Your task to perform on an android device: turn off notifications in google photos Image 0: 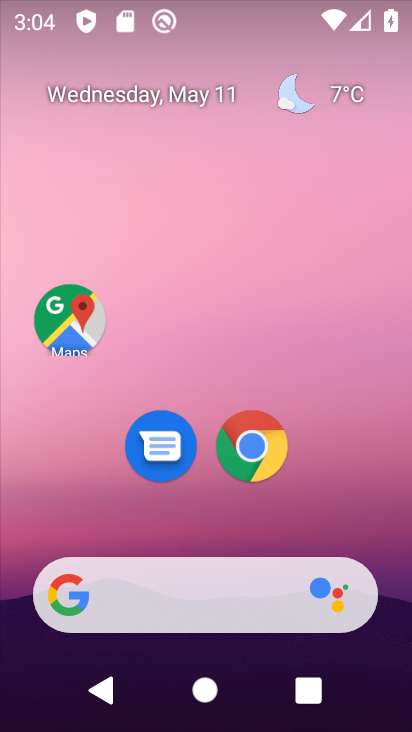
Step 0: drag from (274, 213) to (221, 106)
Your task to perform on an android device: turn off notifications in google photos Image 1: 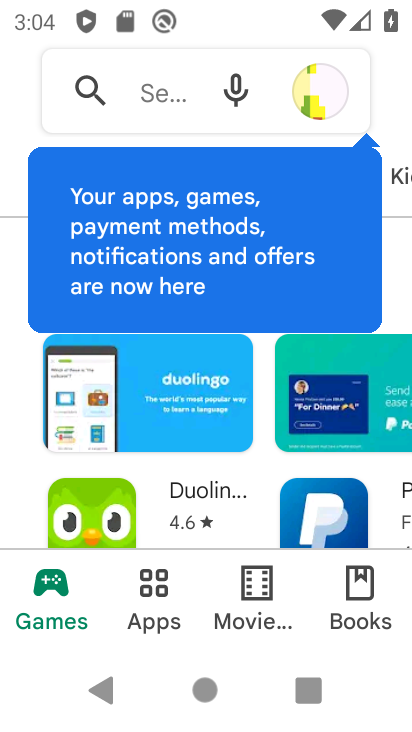
Step 1: press back button
Your task to perform on an android device: turn off notifications in google photos Image 2: 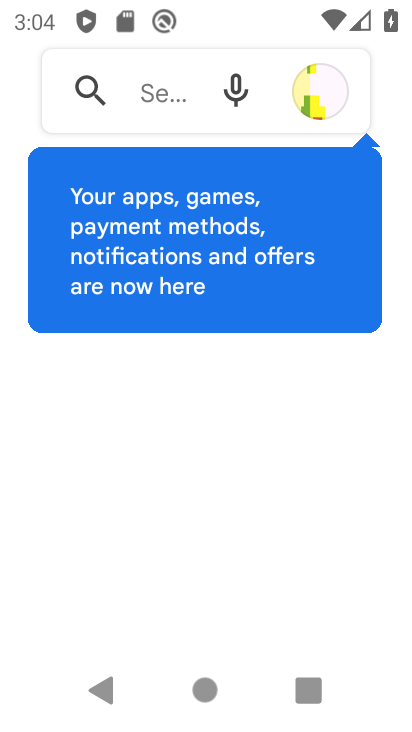
Step 2: press back button
Your task to perform on an android device: turn off notifications in google photos Image 3: 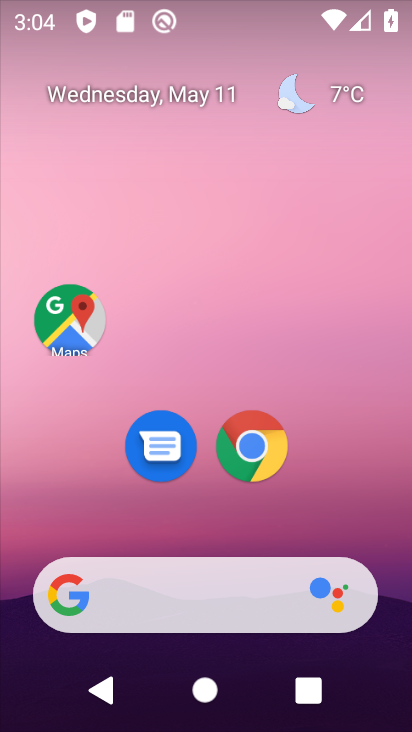
Step 3: drag from (365, 571) to (354, 308)
Your task to perform on an android device: turn off notifications in google photos Image 4: 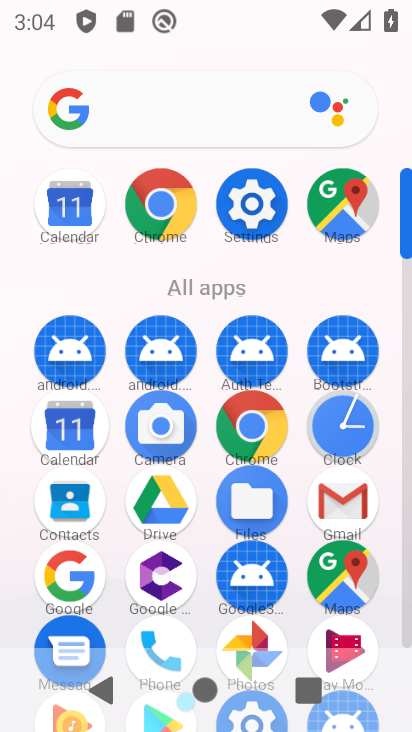
Step 4: click (259, 625)
Your task to perform on an android device: turn off notifications in google photos Image 5: 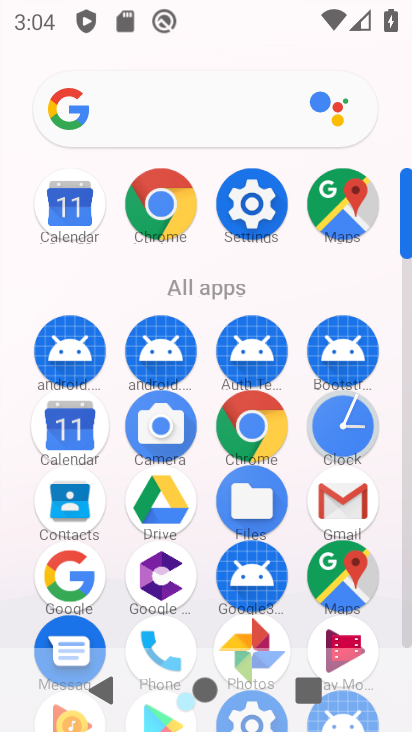
Step 5: click (256, 644)
Your task to perform on an android device: turn off notifications in google photos Image 6: 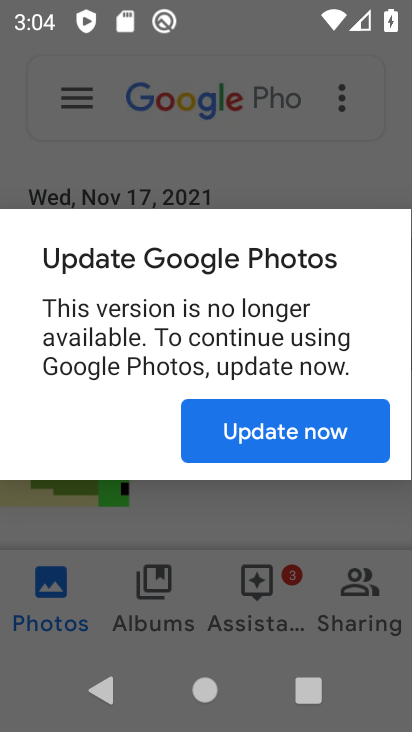
Step 6: click (273, 433)
Your task to perform on an android device: turn off notifications in google photos Image 7: 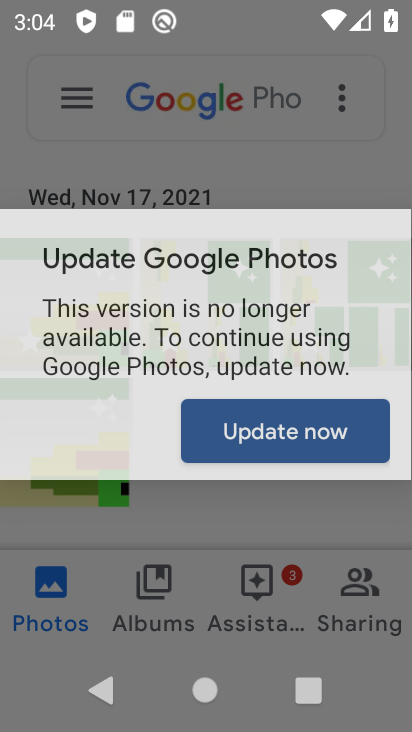
Step 7: click (273, 433)
Your task to perform on an android device: turn off notifications in google photos Image 8: 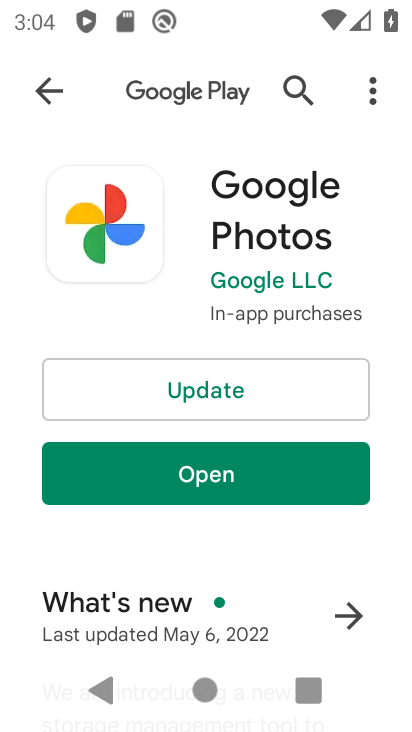
Step 8: click (215, 399)
Your task to perform on an android device: turn off notifications in google photos Image 9: 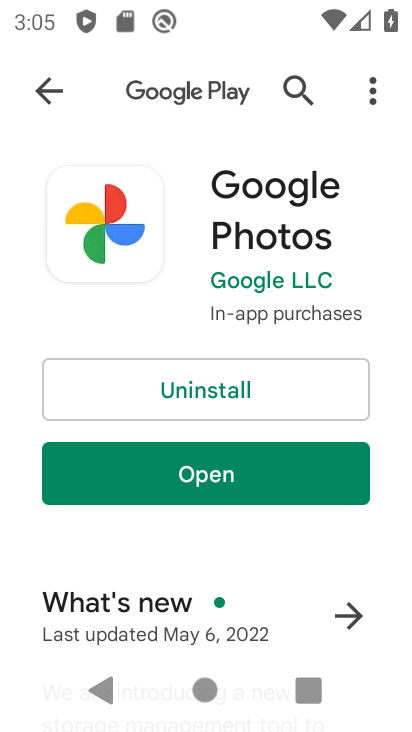
Step 9: click (260, 469)
Your task to perform on an android device: turn off notifications in google photos Image 10: 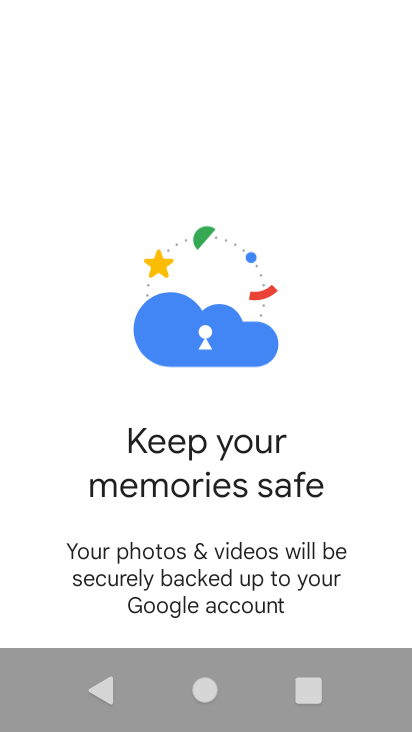
Step 10: press home button
Your task to perform on an android device: turn off notifications in google photos Image 11: 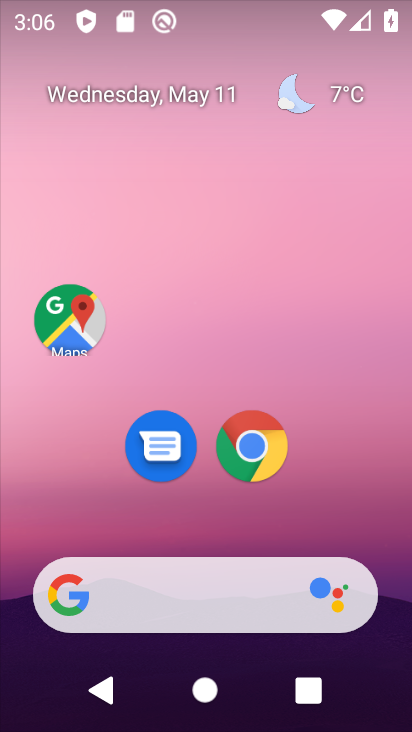
Step 11: drag from (387, 551) to (165, 162)
Your task to perform on an android device: turn off notifications in google photos Image 12: 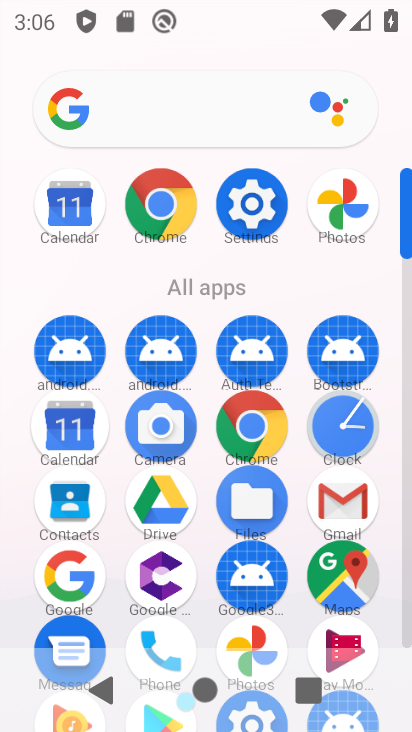
Step 12: drag from (219, 607) to (189, 328)
Your task to perform on an android device: turn off notifications in google photos Image 13: 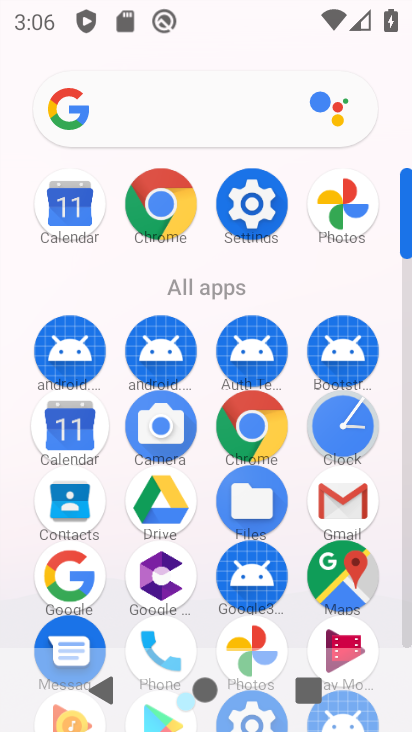
Step 13: drag from (213, 479) to (227, 228)
Your task to perform on an android device: turn off notifications in google photos Image 14: 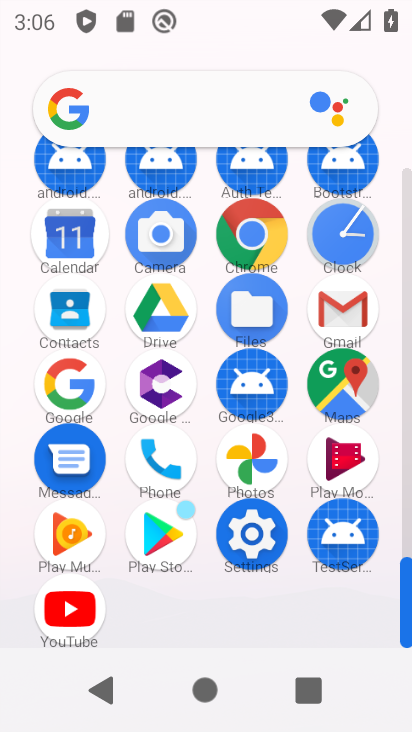
Step 14: click (263, 459)
Your task to perform on an android device: turn off notifications in google photos Image 15: 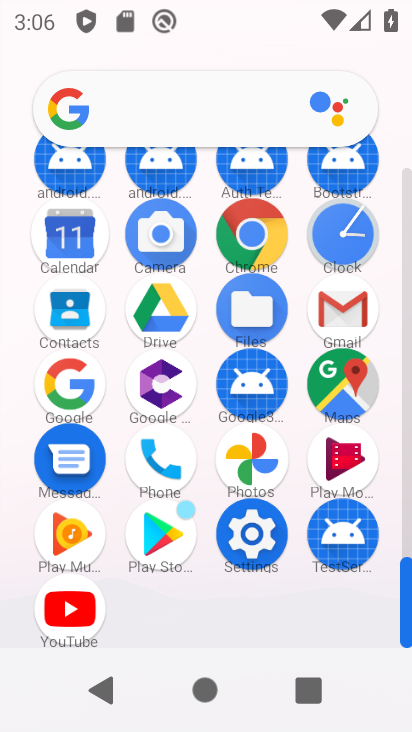
Step 15: click (257, 456)
Your task to perform on an android device: turn off notifications in google photos Image 16: 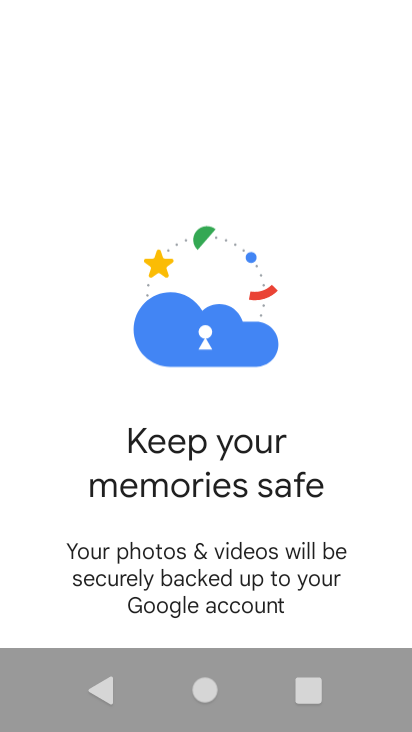
Step 16: drag from (289, 527) to (211, 138)
Your task to perform on an android device: turn off notifications in google photos Image 17: 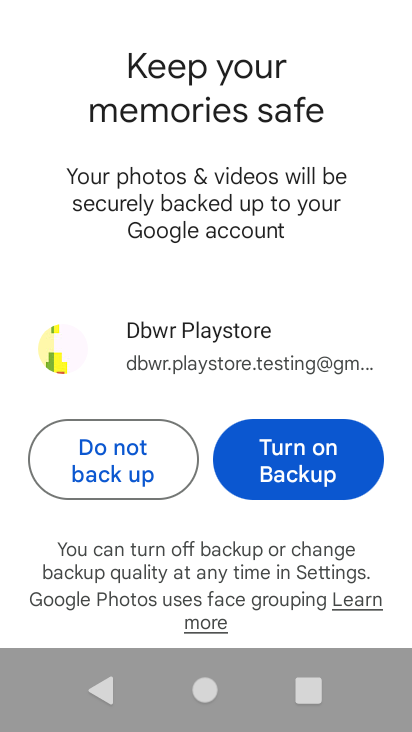
Step 17: drag from (295, 438) to (224, 30)
Your task to perform on an android device: turn off notifications in google photos Image 18: 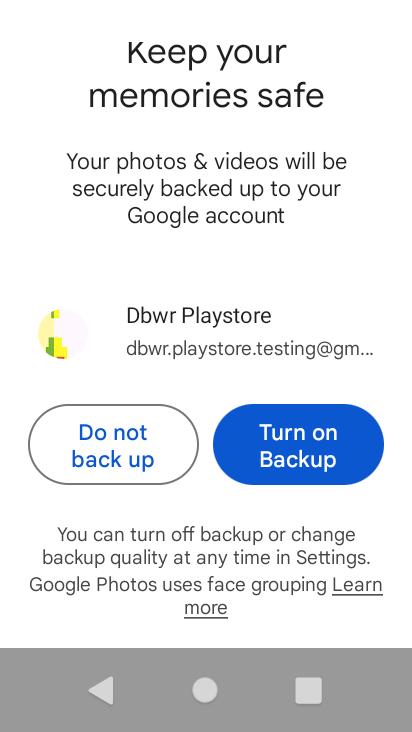
Step 18: click (308, 436)
Your task to perform on an android device: turn off notifications in google photos Image 19: 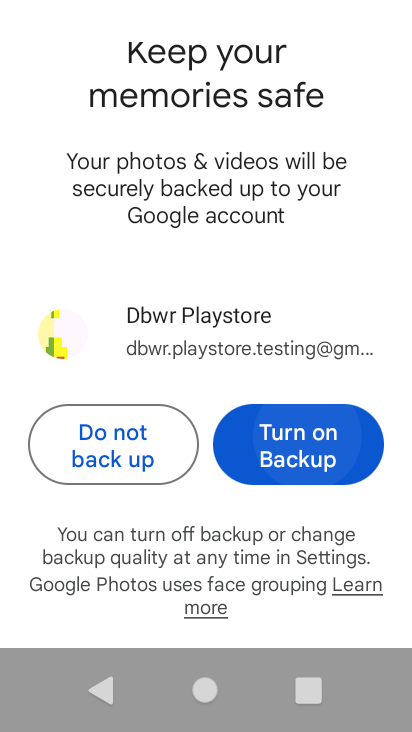
Step 19: click (308, 436)
Your task to perform on an android device: turn off notifications in google photos Image 20: 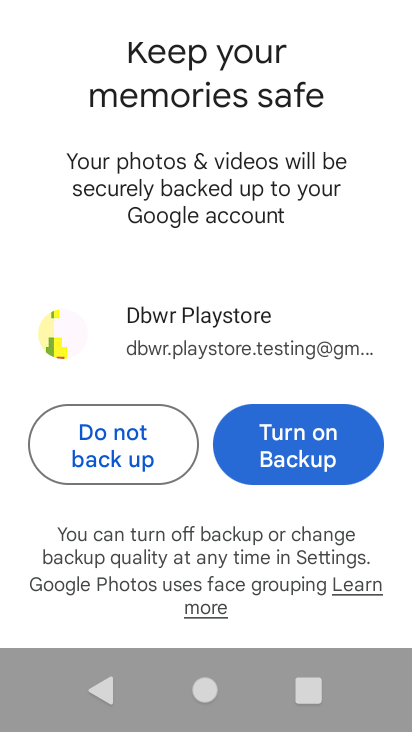
Step 20: click (308, 436)
Your task to perform on an android device: turn off notifications in google photos Image 21: 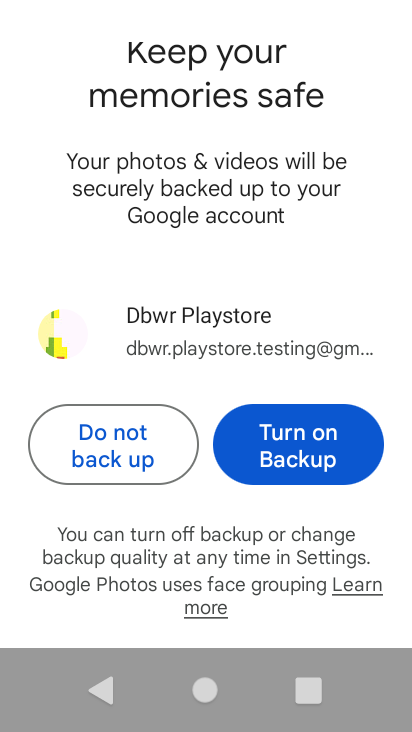
Step 21: click (307, 437)
Your task to perform on an android device: turn off notifications in google photos Image 22: 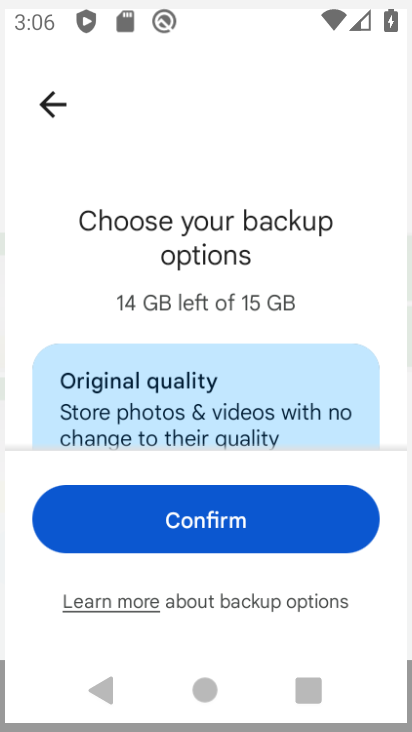
Step 22: click (307, 437)
Your task to perform on an android device: turn off notifications in google photos Image 23: 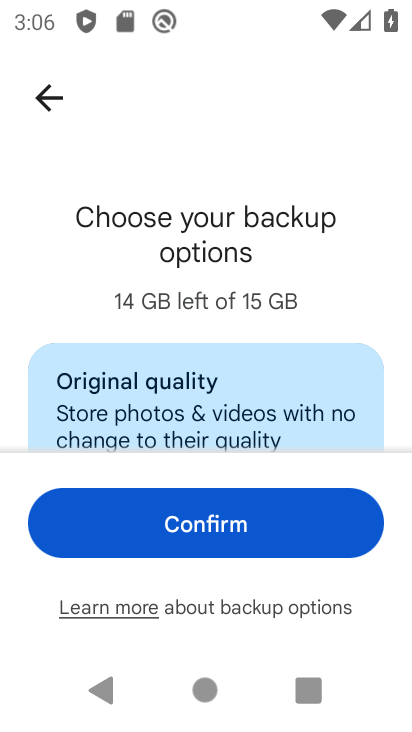
Step 23: click (216, 537)
Your task to perform on an android device: turn off notifications in google photos Image 24: 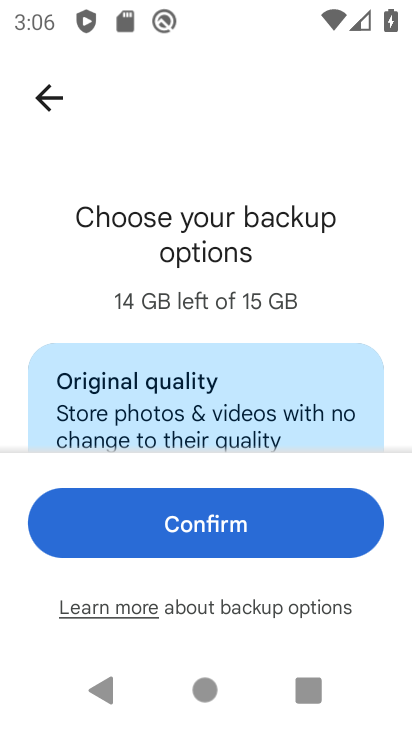
Step 24: click (215, 538)
Your task to perform on an android device: turn off notifications in google photos Image 25: 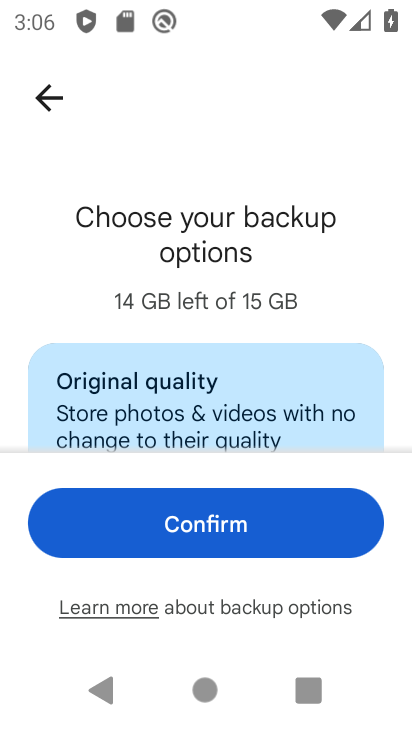
Step 25: click (213, 535)
Your task to perform on an android device: turn off notifications in google photos Image 26: 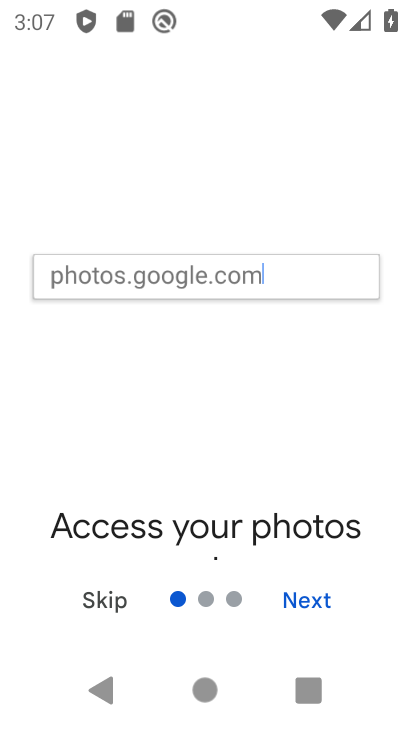
Step 26: click (310, 603)
Your task to perform on an android device: turn off notifications in google photos Image 27: 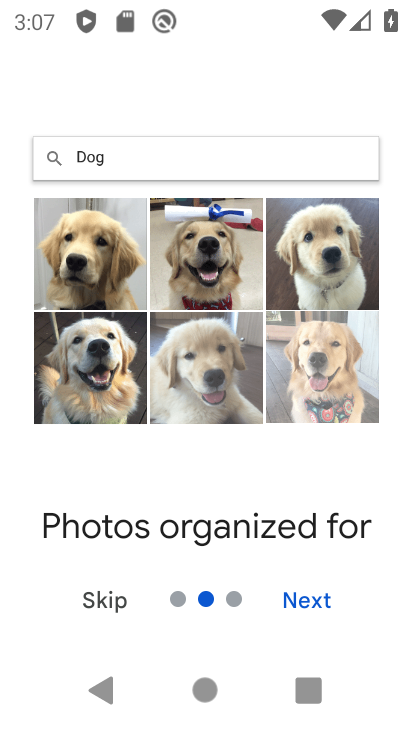
Step 27: click (308, 599)
Your task to perform on an android device: turn off notifications in google photos Image 28: 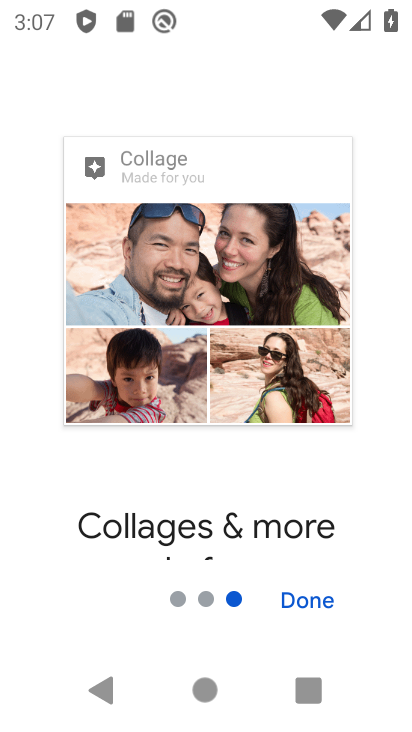
Step 28: click (114, 241)
Your task to perform on an android device: turn off notifications in google photos Image 29: 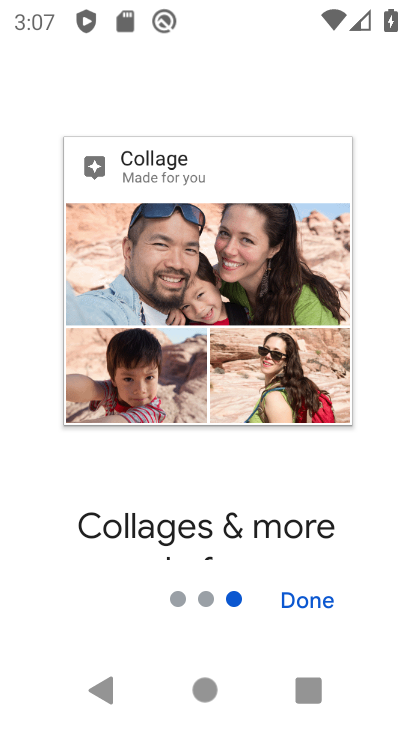
Step 29: click (325, 586)
Your task to perform on an android device: turn off notifications in google photos Image 30: 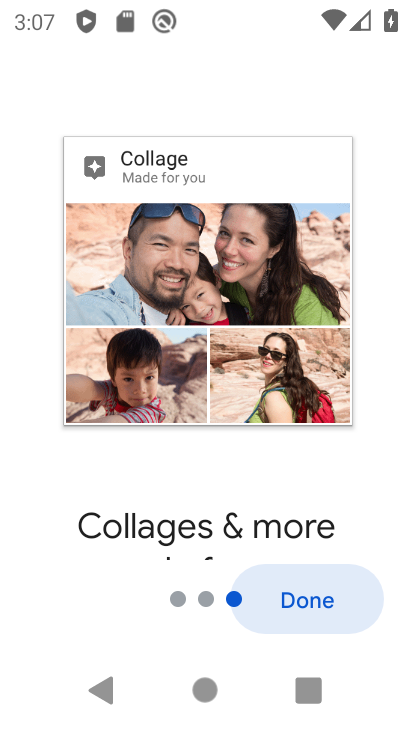
Step 30: click (325, 596)
Your task to perform on an android device: turn off notifications in google photos Image 31: 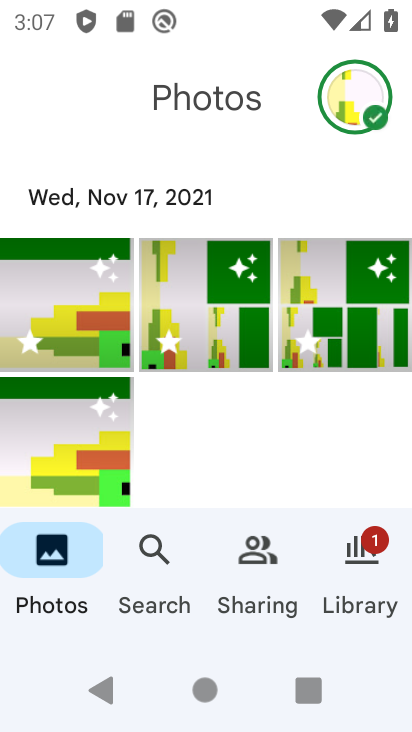
Step 31: drag from (219, 382) to (173, 140)
Your task to perform on an android device: turn off notifications in google photos Image 32: 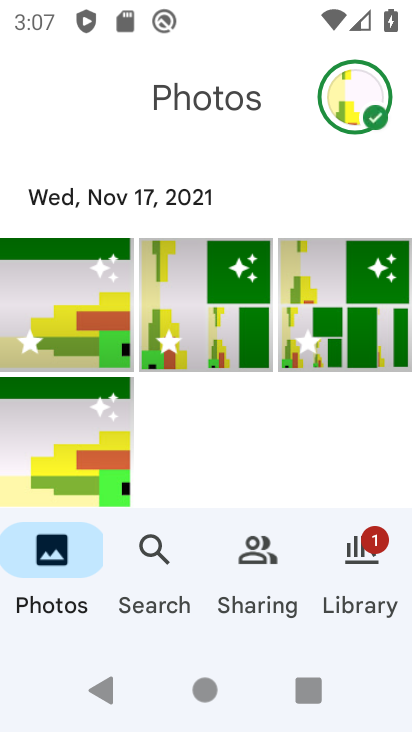
Step 32: drag from (228, 378) to (228, 147)
Your task to perform on an android device: turn off notifications in google photos Image 33: 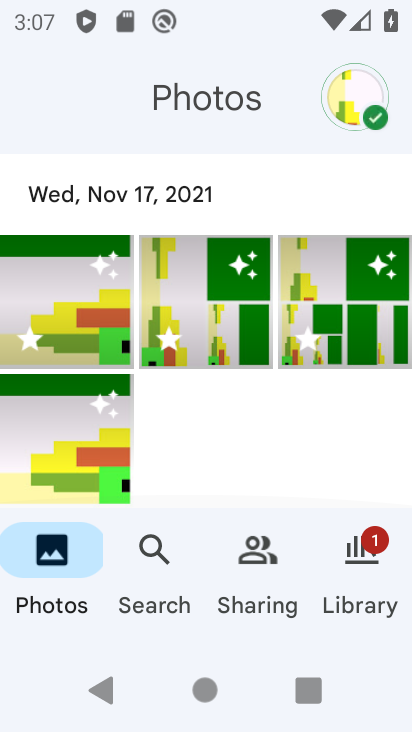
Step 33: drag from (251, 210) to (291, 457)
Your task to perform on an android device: turn off notifications in google photos Image 34: 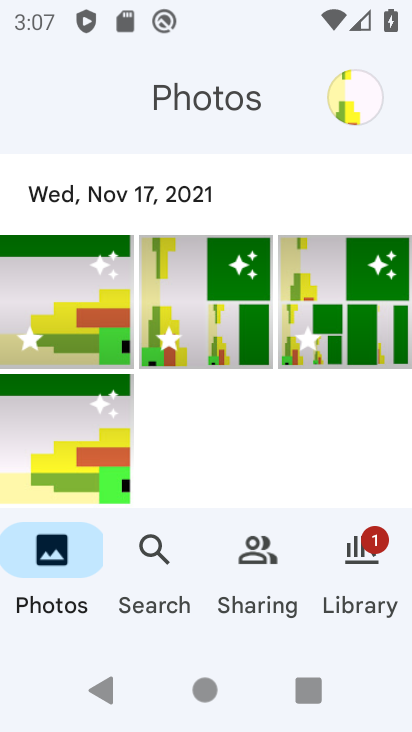
Step 34: click (372, 112)
Your task to perform on an android device: turn off notifications in google photos Image 35: 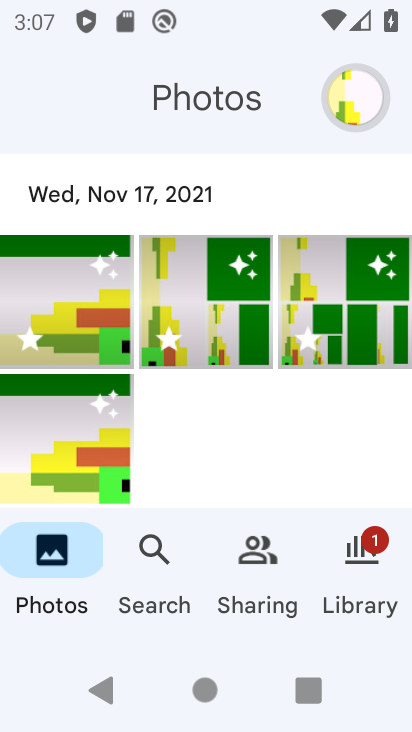
Step 35: click (357, 92)
Your task to perform on an android device: turn off notifications in google photos Image 36: 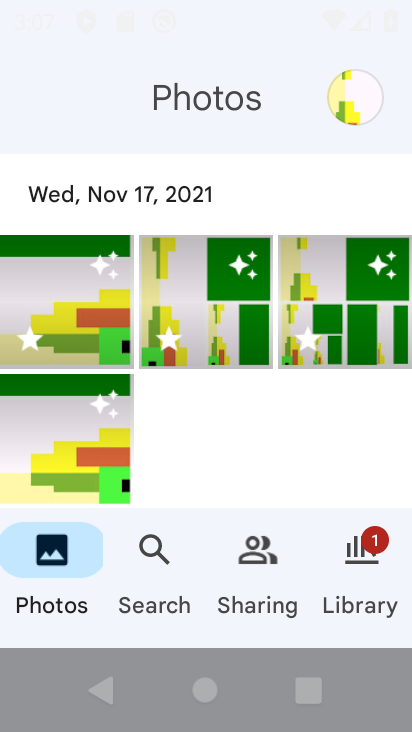
Step 36: click (349, 88)
Your task to perform on an android device: turn off notifications in google photos Image 37: 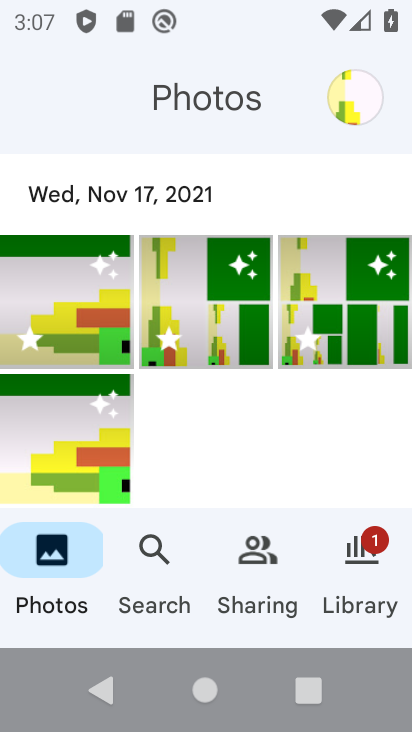
Step 37: drag from (353, 167) to (312, 235)
Your task to perform on an android device: turn off notifications in google photos Image 38: 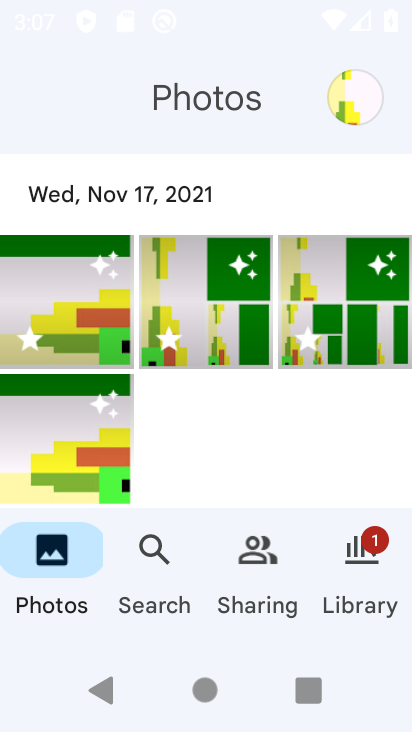
Step 38: click (285, 272)
Your task to perform on an android device: turn off notifications in google photos Image 39: 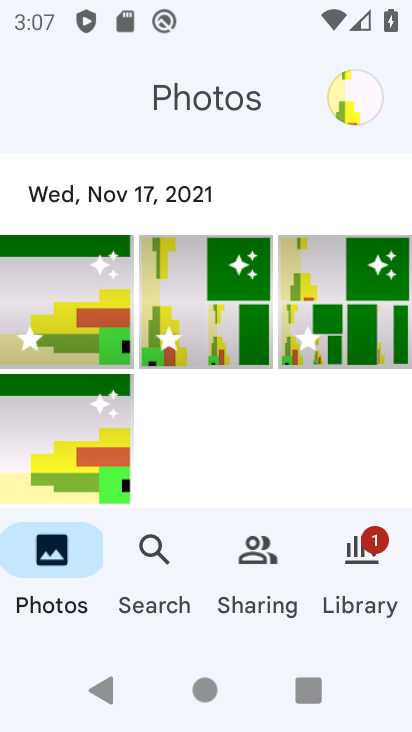
Step 39: task complete